Your task to perform on an android device: Open Yahoo.com Image 0: 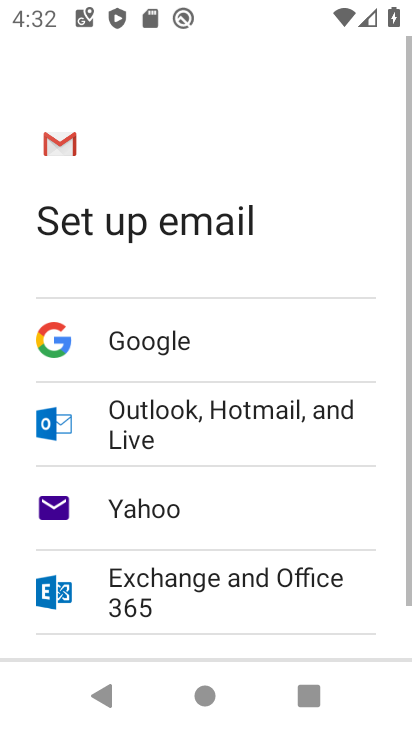
Step 0: press home button
Your task to perform on an android device: Open Yahoo.com Image 1: 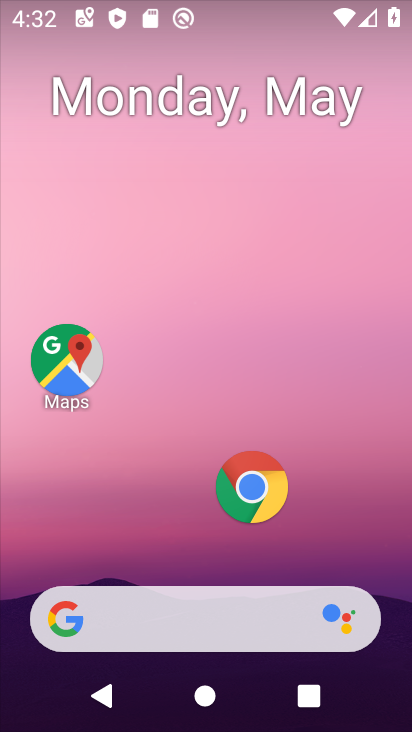
Step 1: click (253, 494)
Your task to perform on an android device: Open Yahoo.com Image 2: 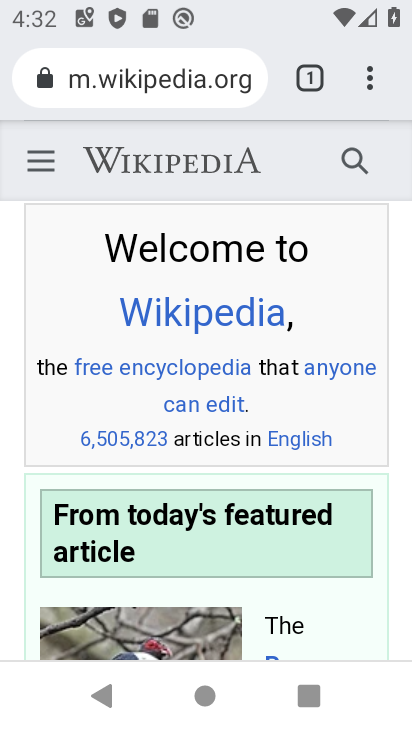
Step 2: click (315, 94)
Your task to perform on an android device: Open Yahoo.com Image 3: 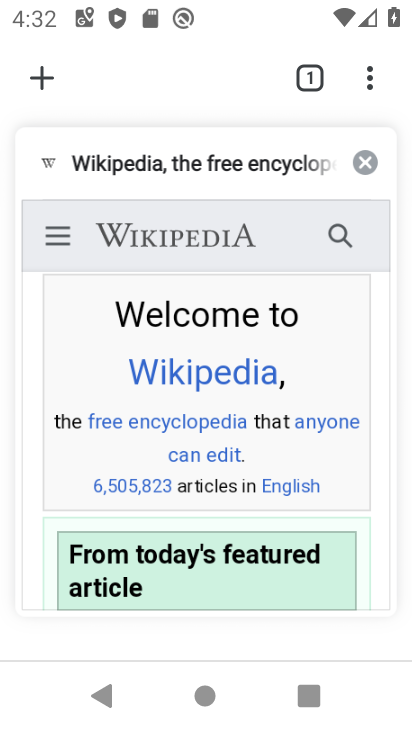
Step 3: click (365, 165)
Your task to perform on an android device: Open Yahoo.com Image 4: 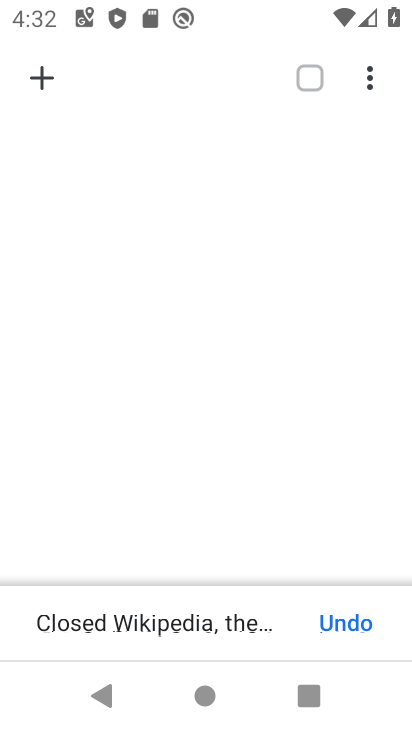
Step 4: click (43, 86)
Your task to perform on an android device: Open Yahoo.com Image 5: 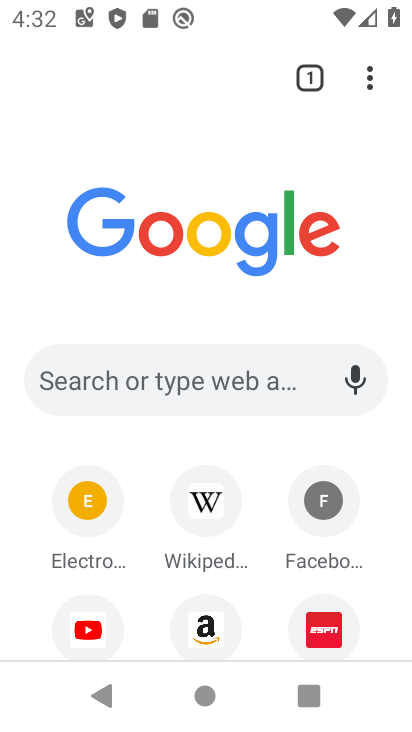
Step 5: drag from (262, 604) to (259, 210)
Your task to perform on an android device: Open Yahoo.com Image 6: 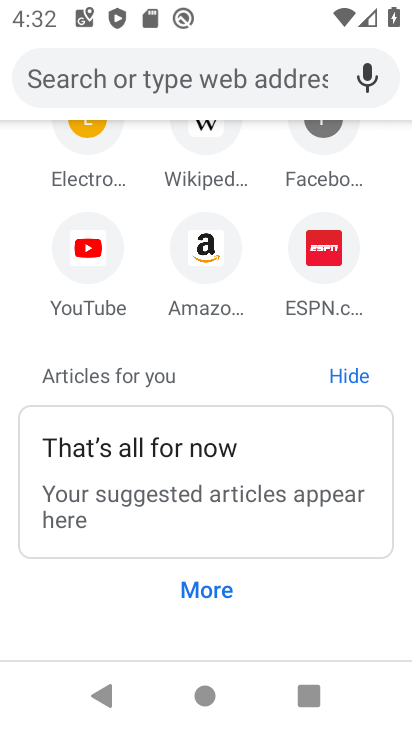
Step 6: click (235, 91)
Your task to perform on an android device: Open Yahoo.com Image 7: 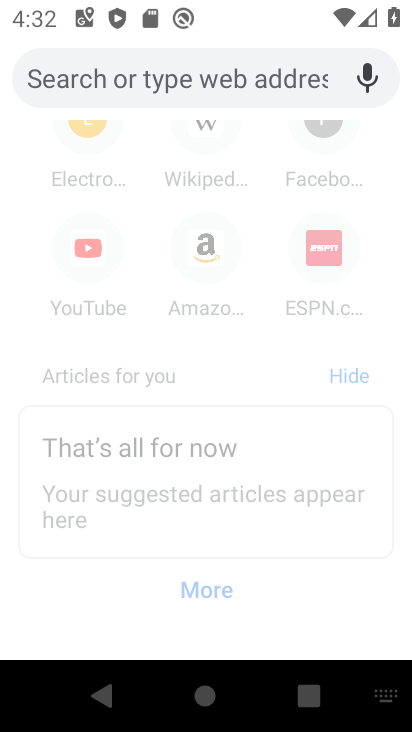
Step 7: type "yahoo.com"
Your task to perform on an android device: Open Yahoo.com Image 8: 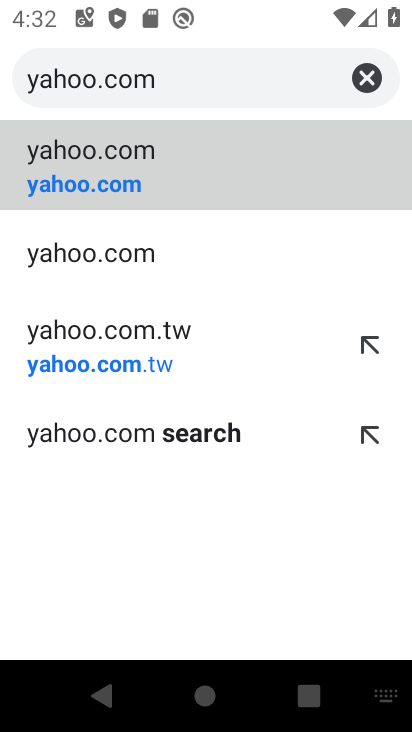
Step 8: click (88, 164)
Your task to perform on an android device: Open Yahoo.com Image 9: 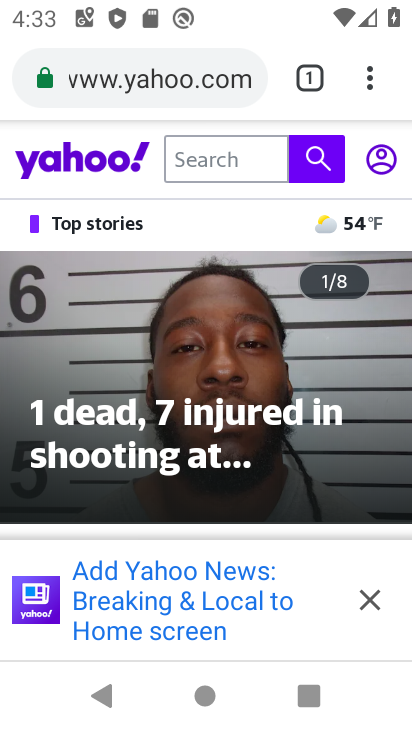
Step 9: task complete